Your task to perform on an android device: toggle wifi Image 0: 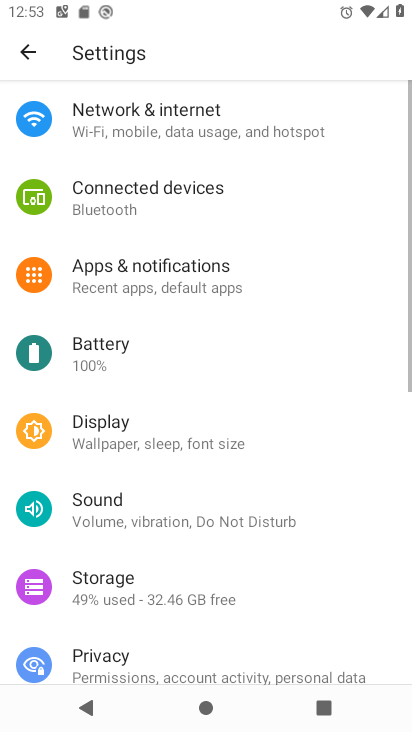
Step 0: drag from (214, 570) to (301, 611)
Your task to perform on an android device: toggle wifi Image 1: 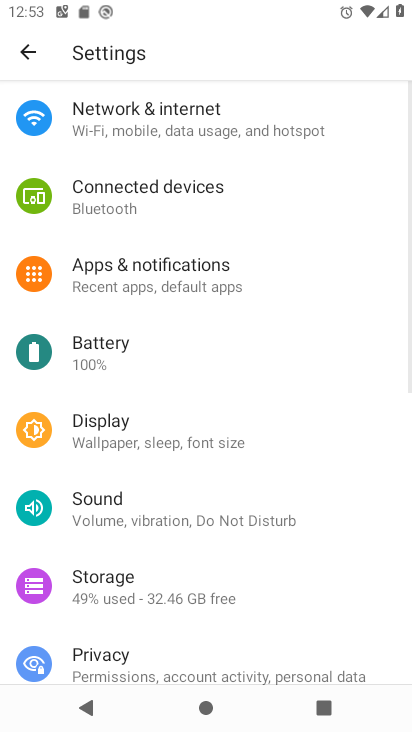
Step 1: click (191, 127)
Your task to perform on an android device: toggle wifi Image 2: 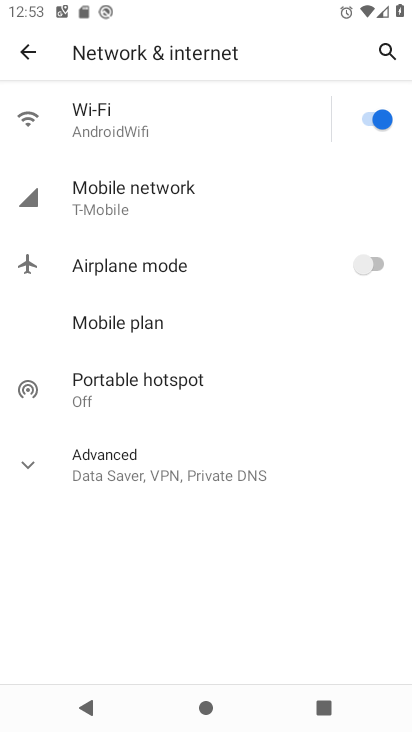
Step 2: click (372, 117)
Your task to perform on an android device: toggle wifi Image 3: 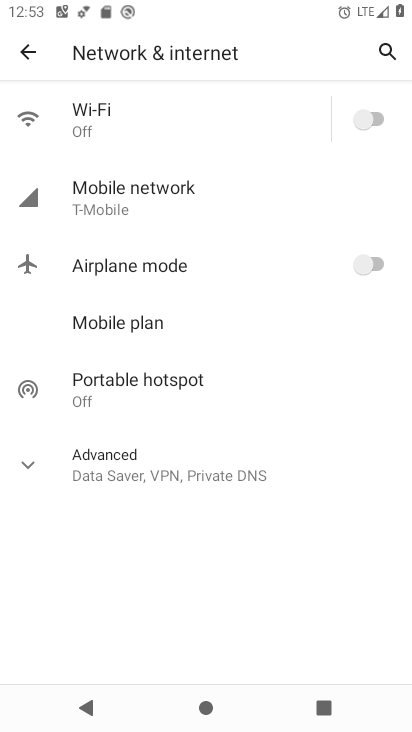
Step 3: task complete